Your task to perform on an android device: Open Google Maps Image 0: 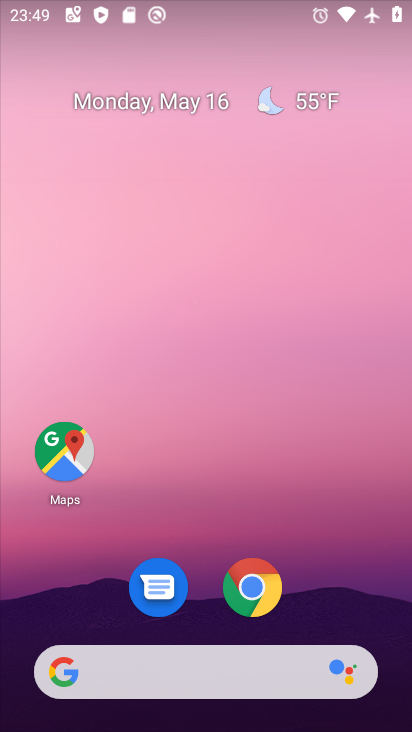
Step 0: drag from (331, 549) to (203, 7)
Your task to perform on an android device: Open Google Maps Image 1: 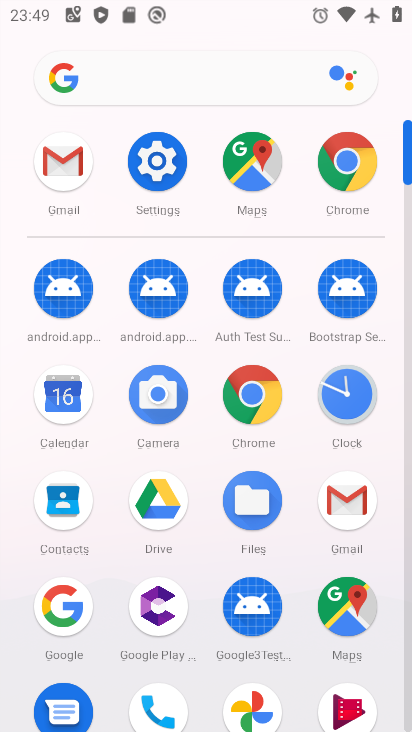
Step 1: click (342, 602)
Your task to perform on an android device: Open Google Maps Image 2: 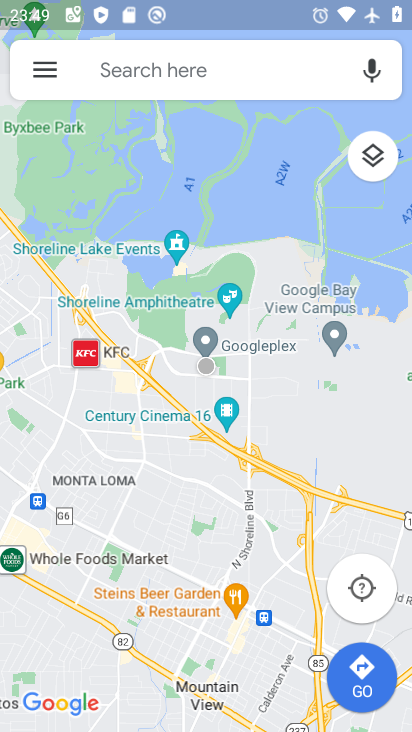
Step 2: task complete